Your task to perform on an android device: add a contact in the contacts app Image 0: 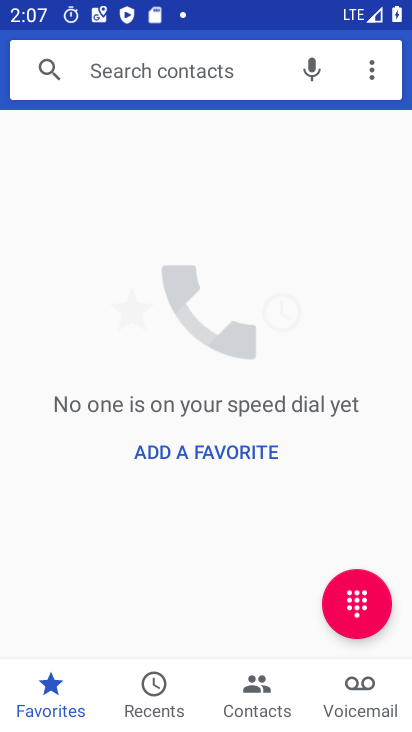
Step 0: press home button
Your task to perform on an android device: add a contact in the contacts app Image 1: 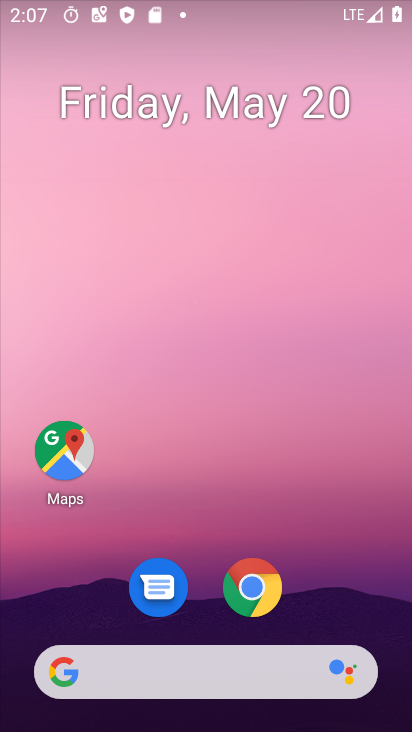
Step 1: drag from (334, 599) to (350, 196)
Your task to perform on an android device: add a contact in the contacts app Image 2: 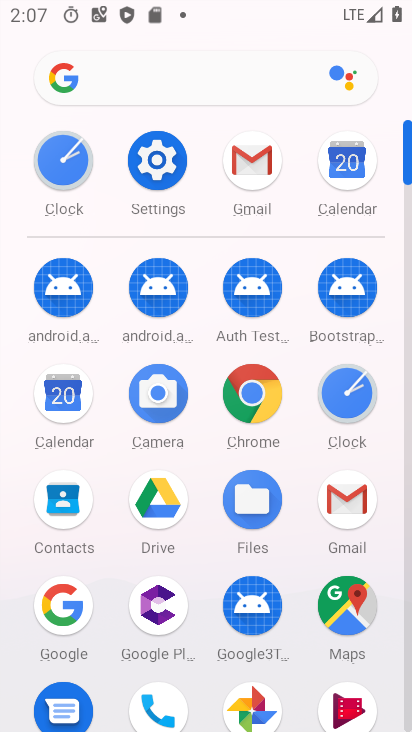
Step 2: click (67, 500)
Your task to perform on an android device: add a contact in the contacts app Image 3: 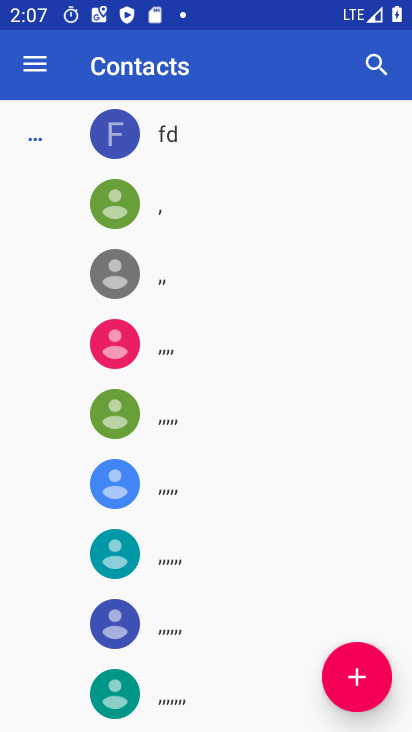
Step 3: click (357, 667)
Your task to perform on an android device: add a contact in the contacts app Image 4: 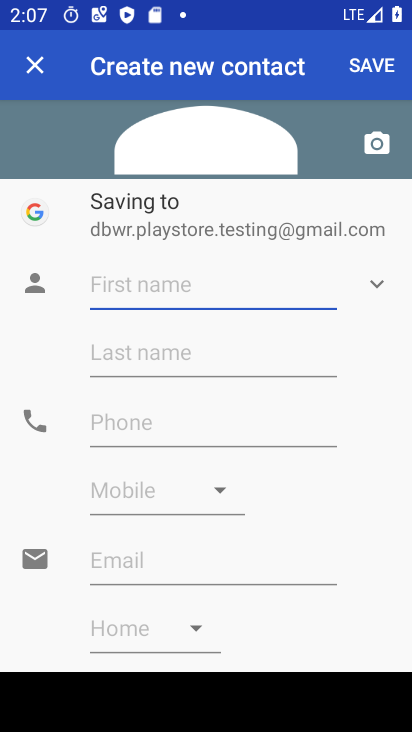
Step 4: click (288, 287)
Your task to perform on an android device: add a contact in the contacts app Image 5: 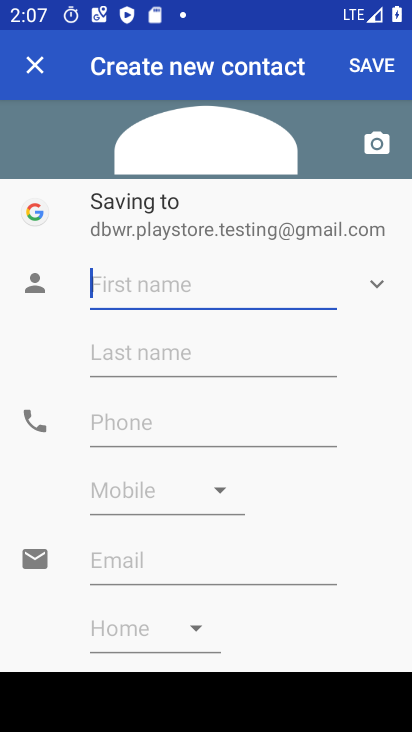
Step 5: type "bhrtiy"
Your task to perform on an android device: add a contact in the contacts app Image 6: 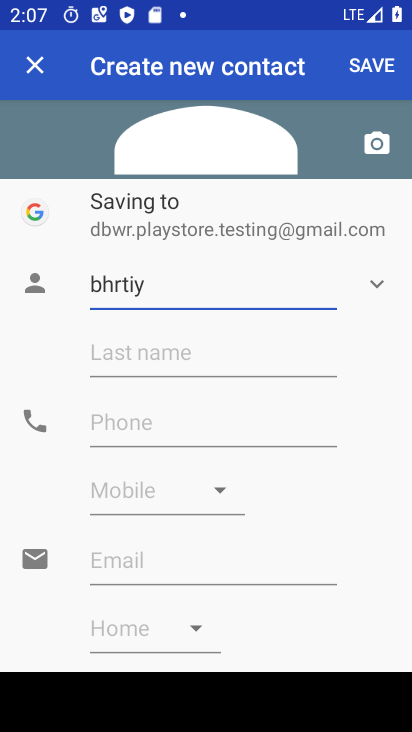
Step 6: click (382, 76)
Your task to perform on an android device: add a contact in the contacts app Image 7: 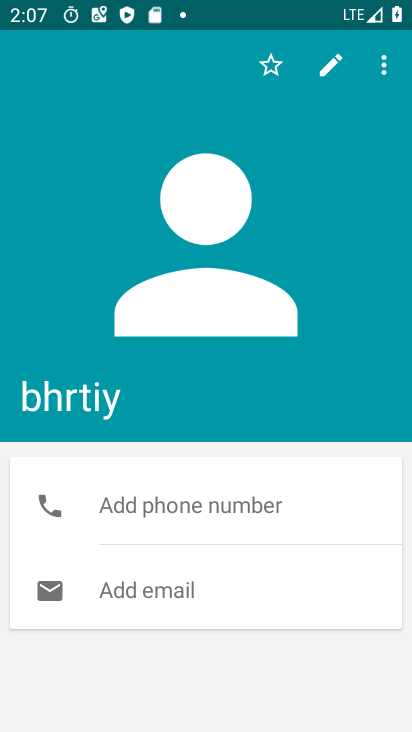
Step 7: task complete